Your task to perform on an android device: change the clock display to analog Image 0: 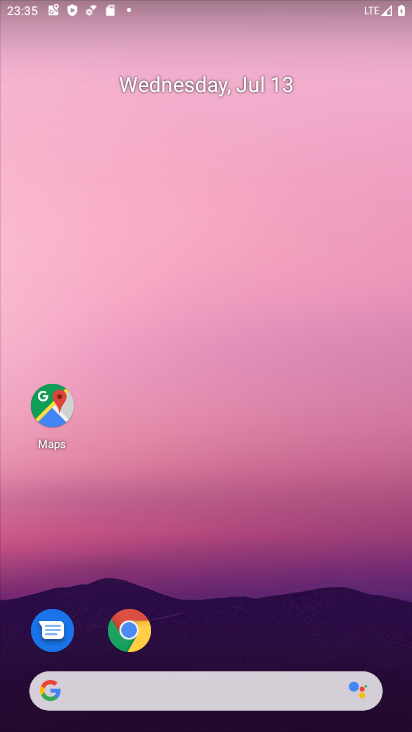
Step 0: drag from (275, 588) to (329, 246)
Your task to perform on an android device: change the clock display to analog Image 1: 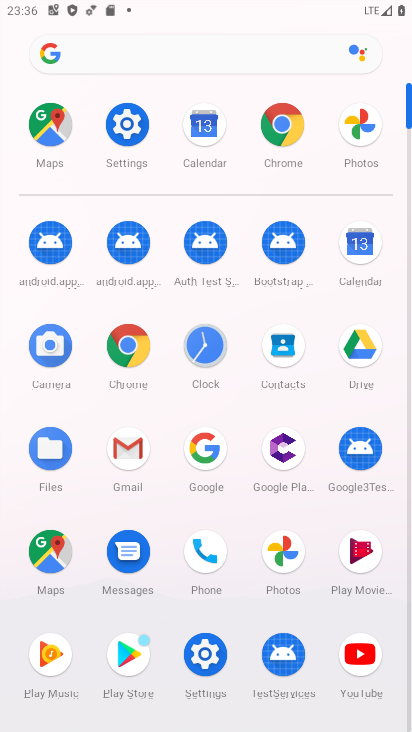
Step 1: click (211, 351)
Your task to perform on an android device: change the clock display to analog Image 2: 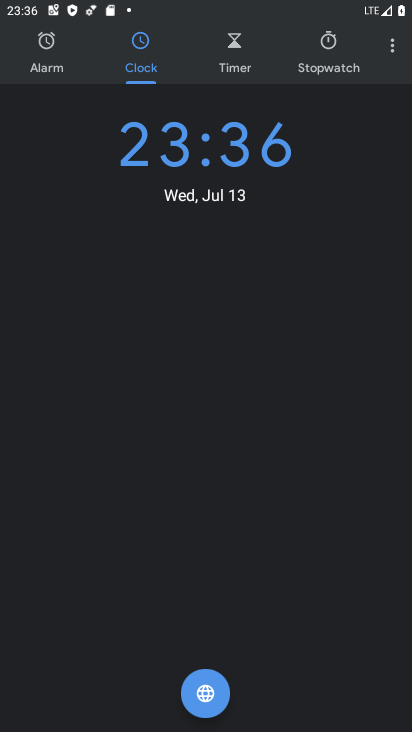
Step 2: click (390, 49)
Your task to perform on an android device: change the clock display to analog Image 3: 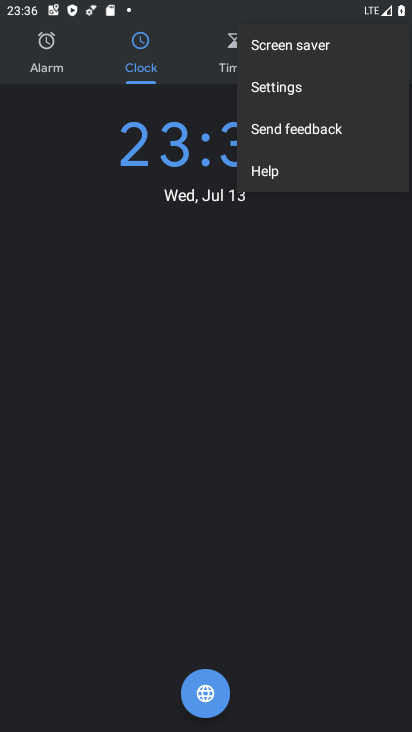
Step 3: click (284, 86)
Your task to perform on an android device: change the clock display to analog Image 4: 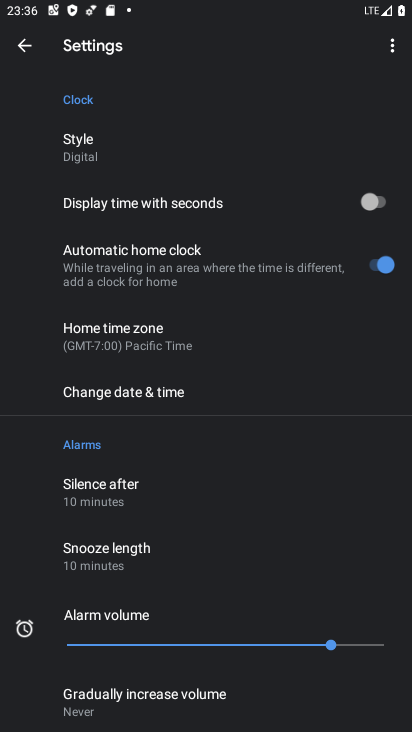
Step 4: drag from (280, 452) to (288, 284)
Your task to perform on an android device: change the clock display to analog Image 5: 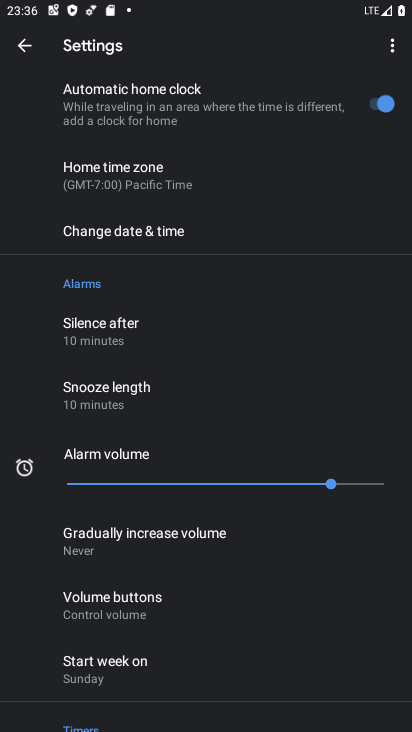
Step 5: drag from (301, 583) to (306, 442)
Your task to perform on an android device: change the clock display to analog Image 6: 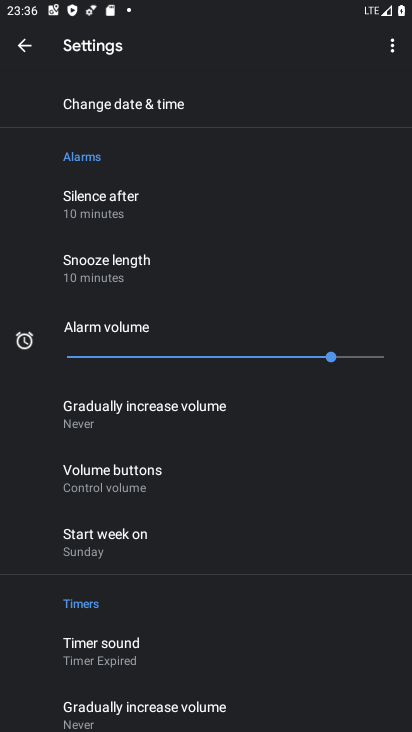
Step 6: drag from (312, 583) to (327, 294)
Your task to perform on an android device: change the clock display to analog Image 7: 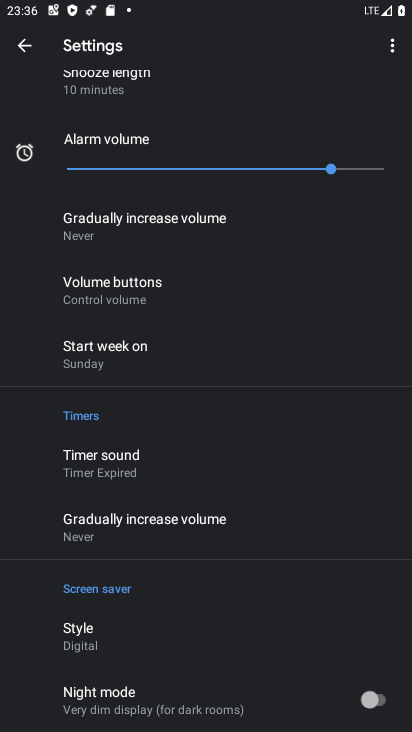
Step 7: drag from (320, 441) to (336, 224)
Your task to perform on an android device: change the clock display to analog Image 8: 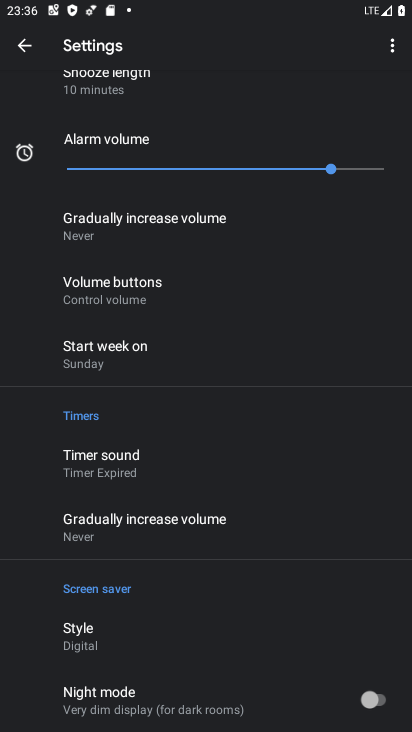
Step 8: drag from (311, 580) to (325, 377)
Your task to perform on an android device: change the clock display to analog Image 9: 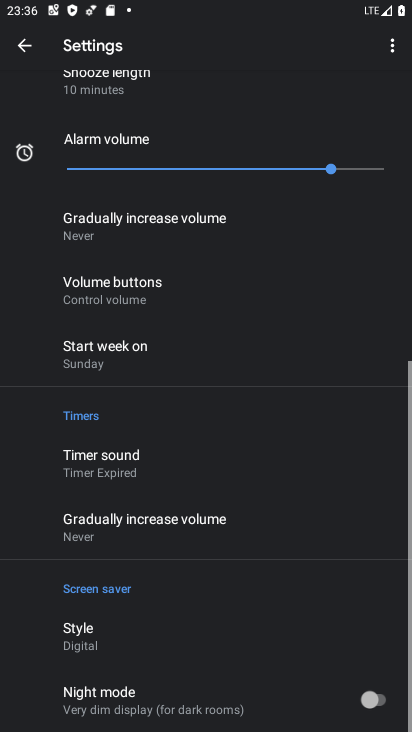
Step 9: drag from (319, 323) to (317, 472)
Your task to perform on an android device: change the clock display to analog Image 10: 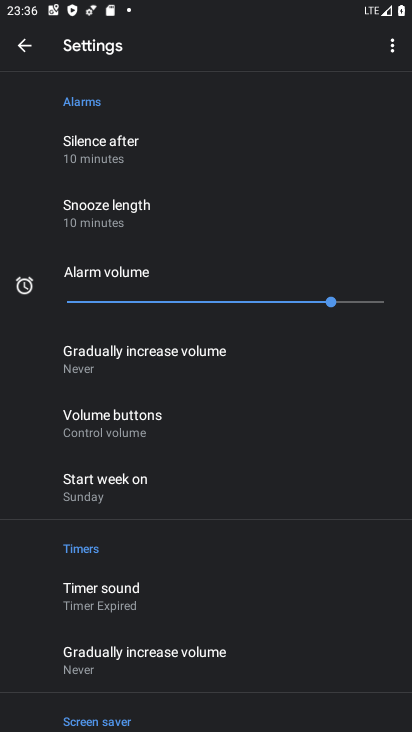
Step 10: drag from (297, 239) to (296, 420)
Your task to perform on an android device: change the clock display to analog Image 11: 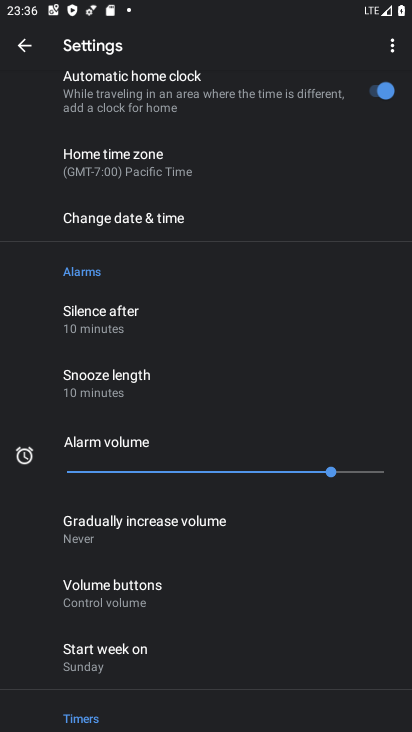
Step 11: drag from (301, 310) to (303, 458)
Your task to perform on an android device: change the clock display to analog Image 12: 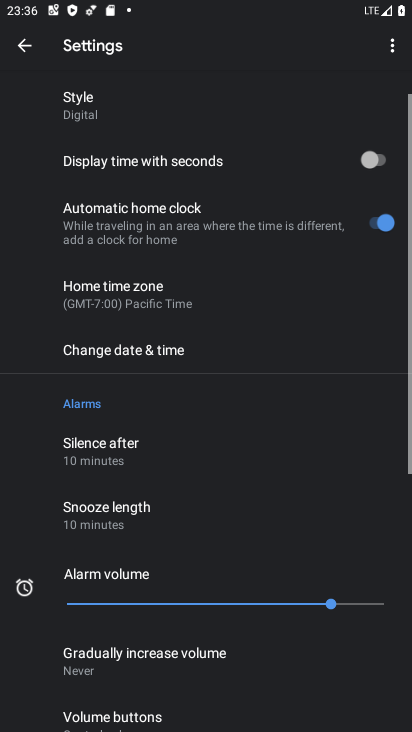
Step 12: drag from (320, 316) to (323, 525)
Your task to perform on an android device: change the clock display to analog Image 13: 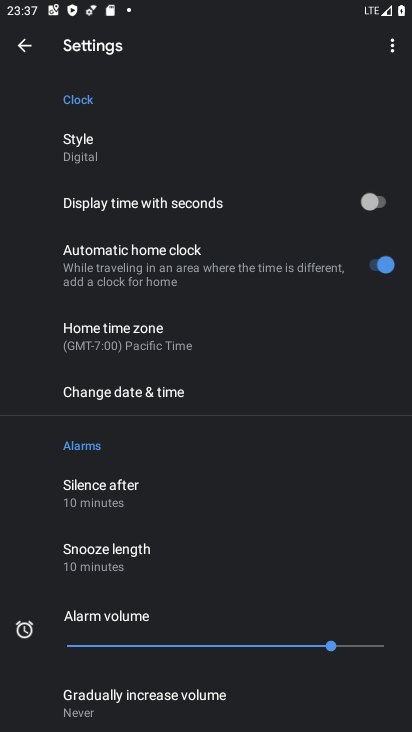
Step 13: drag from (322, 339) to (333, 537)
Your task to perform on an android device: change the clock display to analog Image 14: 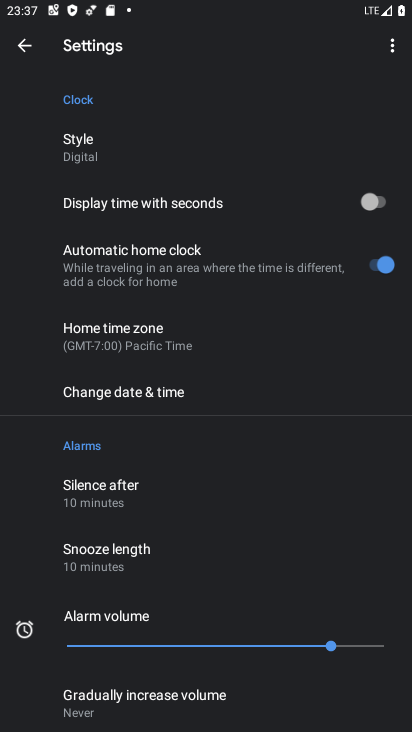
Step 14: drag from (319, 346) to (334, 521)
Your task to perform on an android device: change the clock display to analog Image 15: 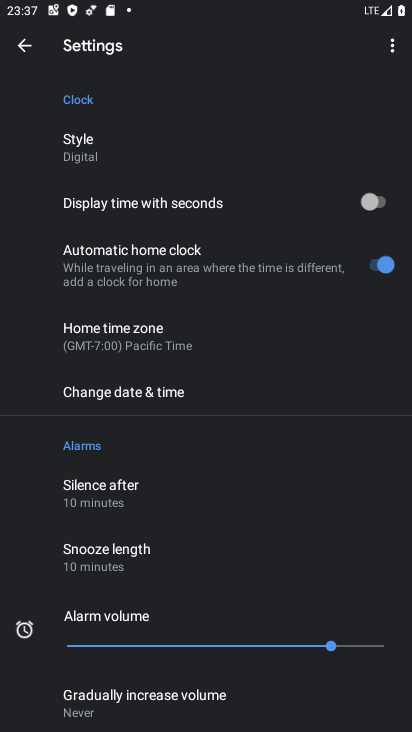
Step 15: drag from (308, 269) to (318, 490)
Your task to perform on an android device: change the clock display to analog Image 16: 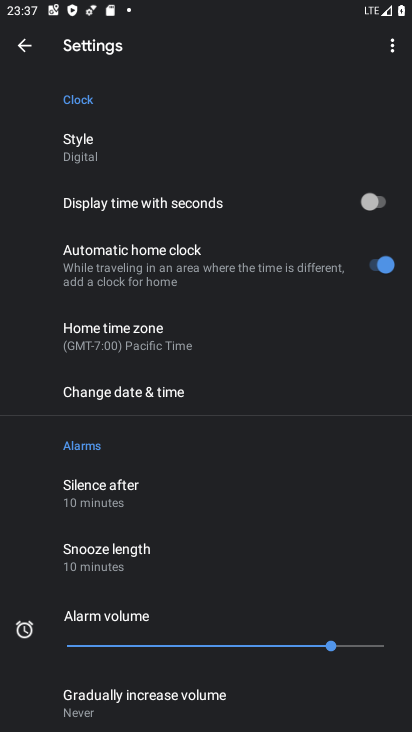
Step 16: click (97, 161)
Your task to perform on an android device: change the clock display to analog Image 17: 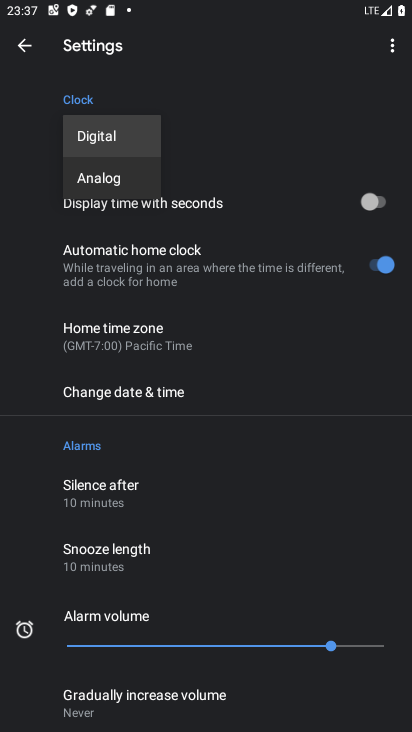
Step 17: click (100, 175)
Your task to perform on an android device: change the clock display to analog Image 18: 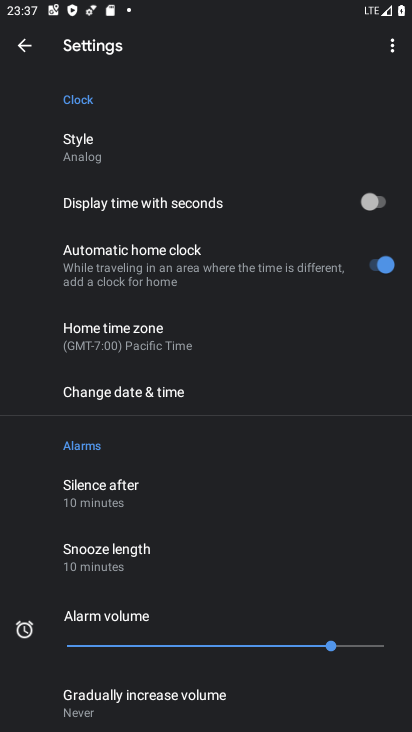
Step 18: task complete